Your task to perform on an android device: Go to settings Image 0: 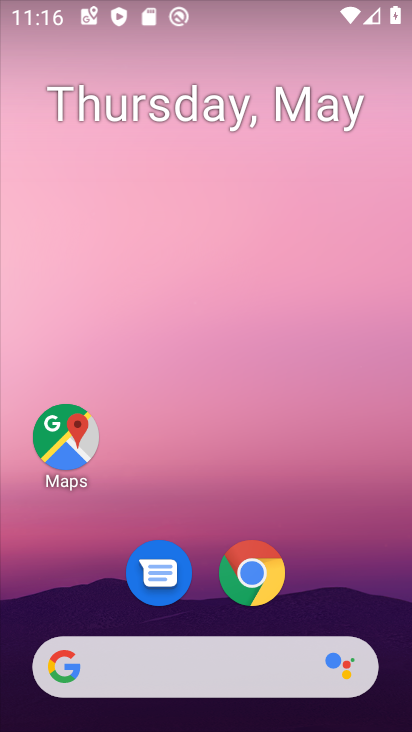
Step 0: drag from (288, 541) to (213, 182)
Your task to perform on an android device: Go to settings Image 1: 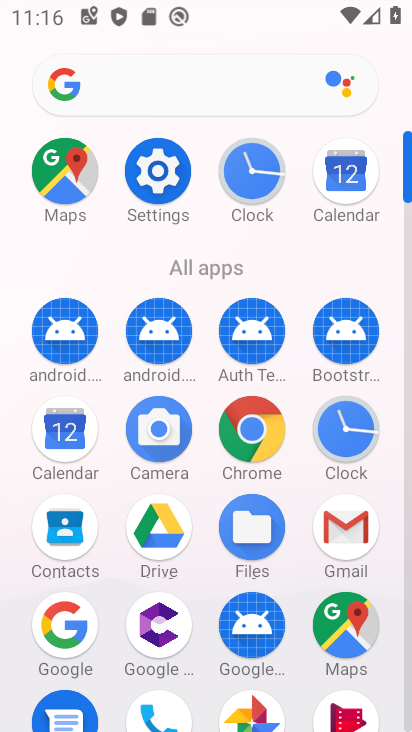
Step 1: click (153, 162)
Your task to perform on an android device: Go to settings Image 2: 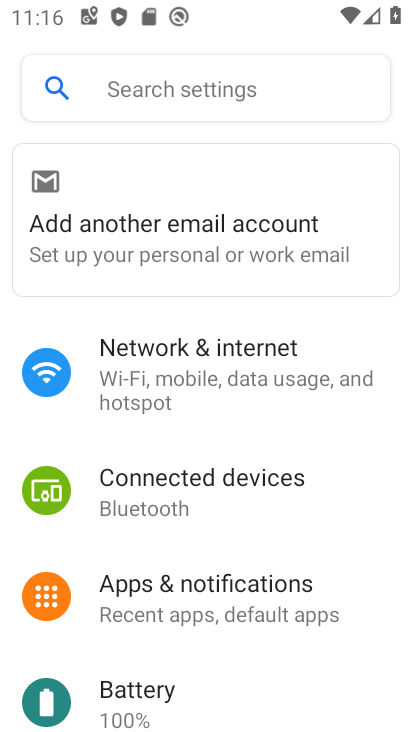
Step 2: task complete